Your task to perform on an android device: turn on notifications settings in the gmail app Image 0: 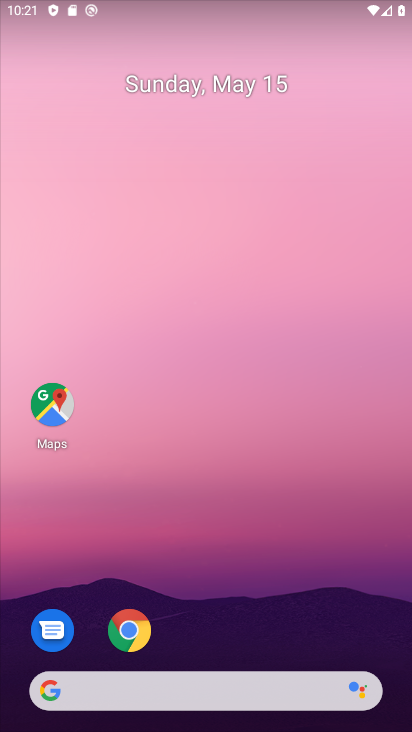
Step 0: drag from (254, 623) to (268, 110)
Your task to perform on an android device: turn on notifications settings in the gmail app Image 1: 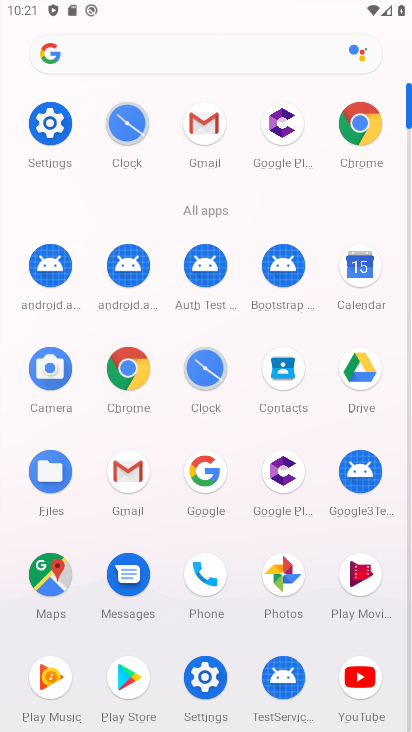
Step 1: click (213, 120)
Your task to perform on an android device: turn on notifications settings in the gmail app Image 2: 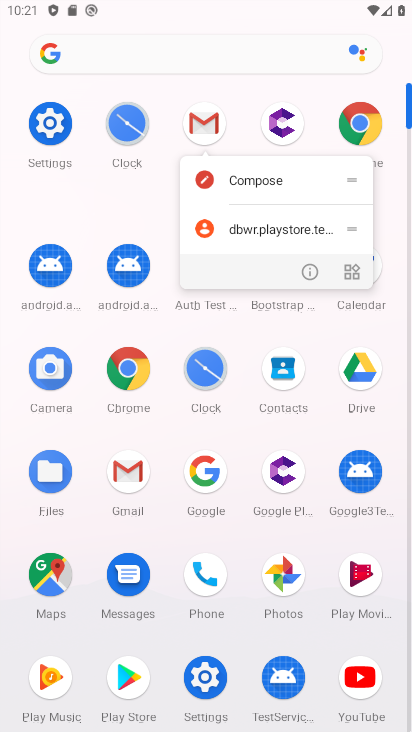
Step 2: click (305, 269)
Your task to perform on an android device: turn on notifications settings in the gmail app Image 3: 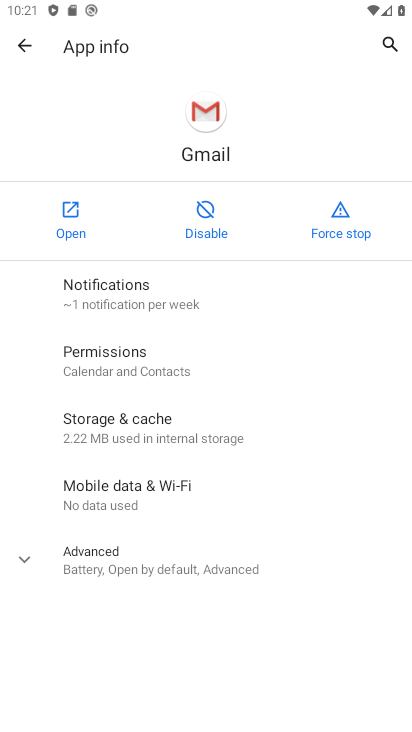
Step 3: click (169, 284)
Your task to perform on an android device: turn on notifications settings in the gmail app Image 4: 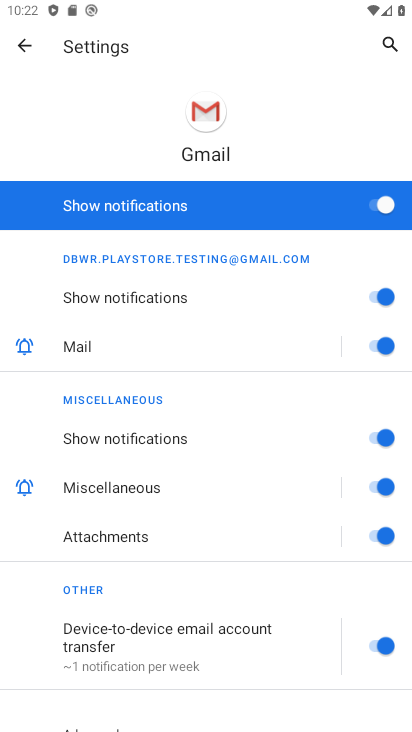
Step 4: task complete